Your task to perform on an android device: check the backup settings in the google photos Image 0: 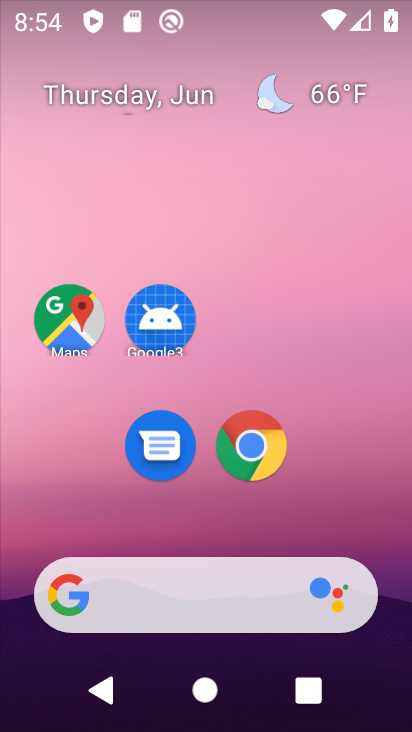
Step 0: drag from (329, 500) to (295, 23)
Your task to perform on an android device: check the backup settings in the google photos Image 1: 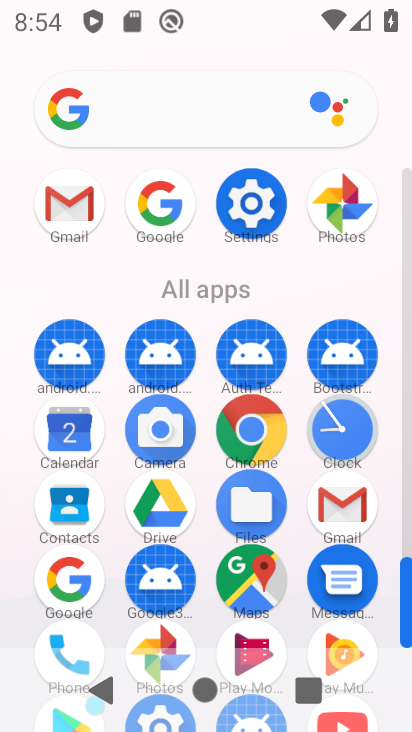
Step 1: click (167, 631)
Your task to perform on an android device: check the backup settings in the google photos Image 2: 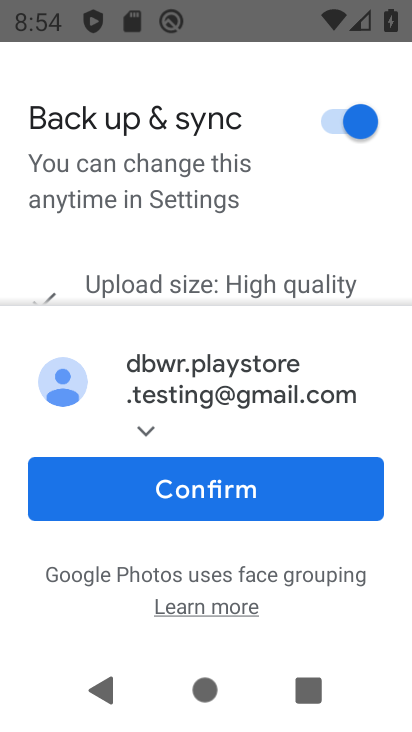
Step 2: click (262, 511)
Your task to perform on an android device: check the backup settings in the google photos Image 3: 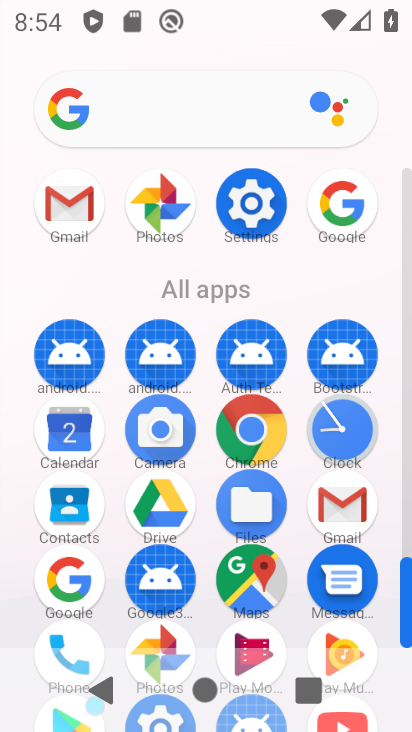
Step 3: click (159, 632)
Your task to perform on an android device: check the backup settings in the google photos Image 4: 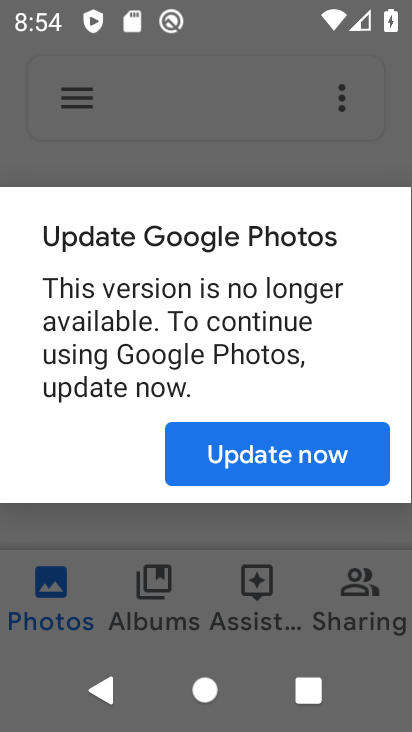
Step 4: click (256, 456)
Your task to perform on an android device: check the backup settings in the google photos Image 5: 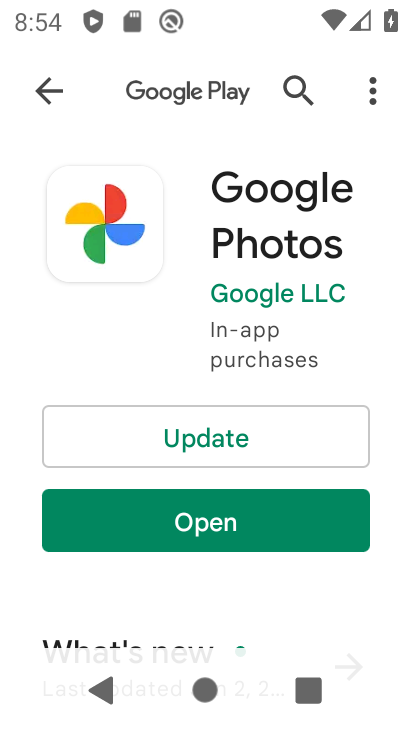
Step 5: click (179, 429)
Your task to perform on an android device: check the backup settings in the google photos Image 6: 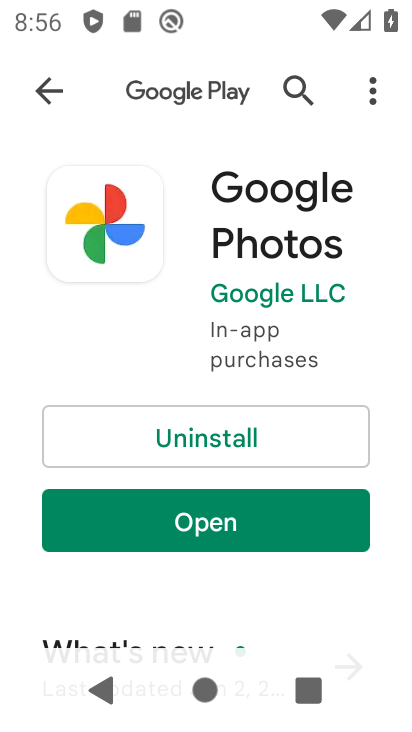
Step 6: click (237, 517)
Your task to perform on an android device: check the backup settings in the google photos Image 7: 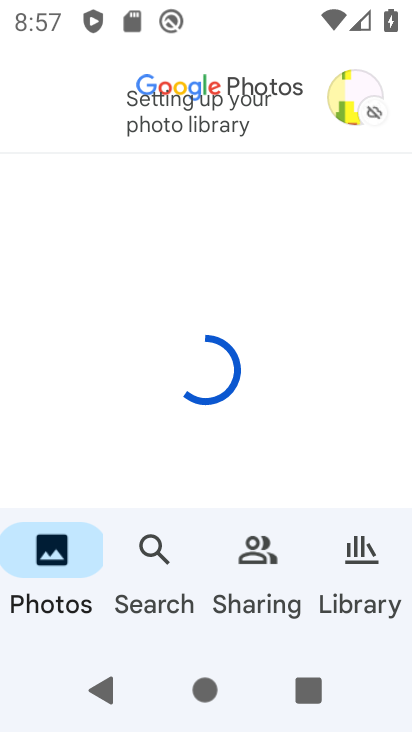
Step 7: click (358, 91)
Your task to perform on an android device: check the backup settings in the google photos Image 8: 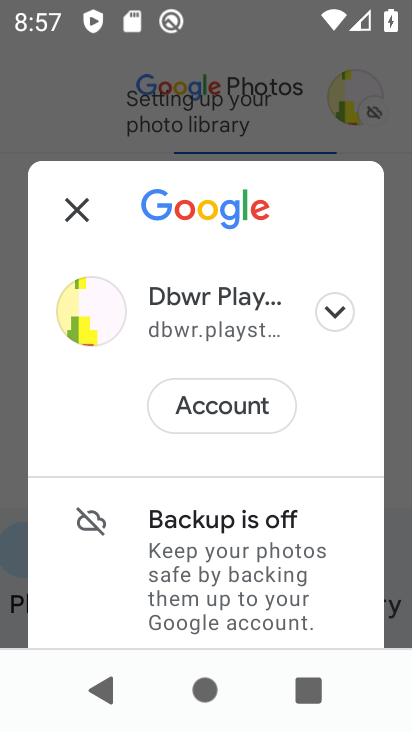
Step 8: drag from (246, 538) to (271, 182)
Your task to perform on an android device: check the backup settings in the google photos Image 9: 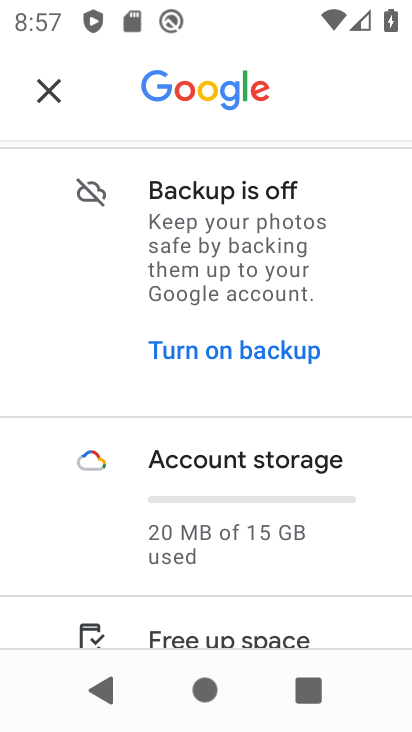
Step 9: drag from (248, 543) to (274, 177)
Your task to perform on an android device: check the backup settings in the google photos Image 10: 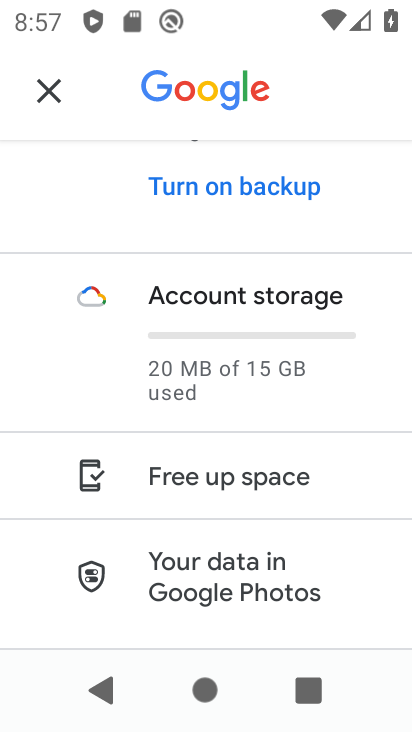
Step 10: drag from (229, 553) to (274, 221)
Your task to perform on an android device: check the backup settings in the google photos Image 11: 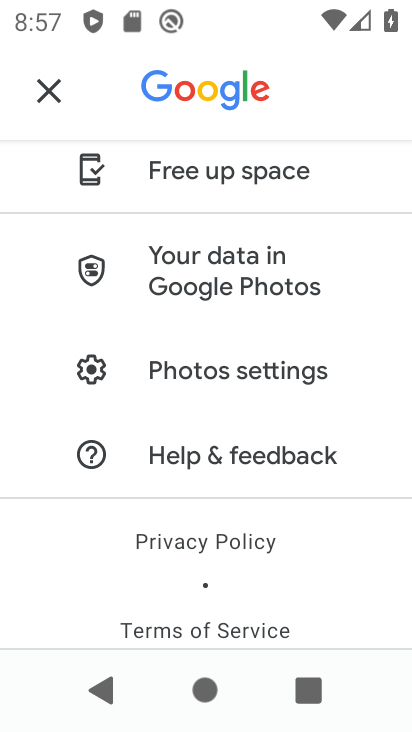
Step 11: drag from (210, 559) to (223, 264)
Your task to perform on an android device: check the backup settings in the google photos Image 12: 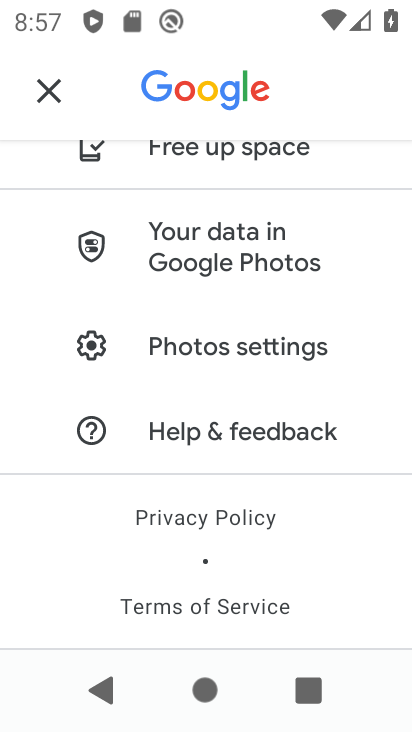
Step 12: click (256, 348)
Your task to perform on an android device: check the backup settings in the google photos Image 13: 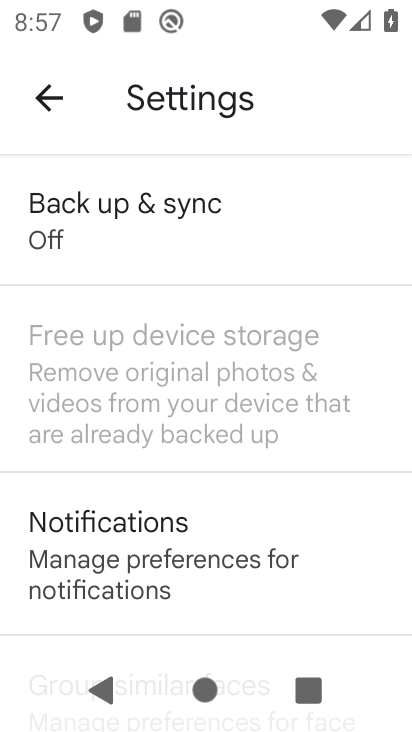
Step 13: click (94, 209)
Your task to perform on an android device: check the backup settings in the google photos Image 14: 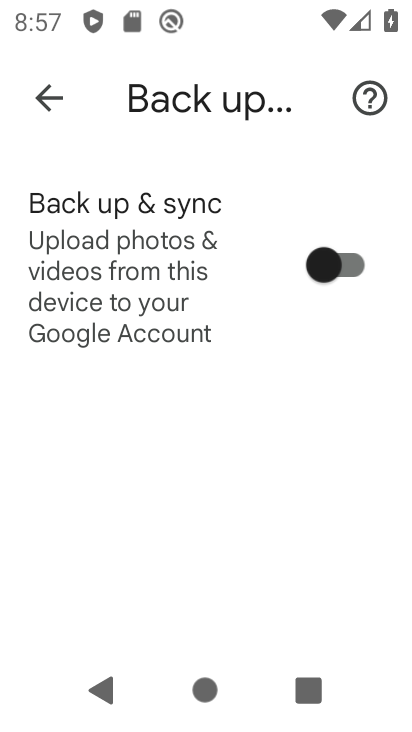
Step 14: task complete